Your task to perform on an android device: Show me popular videos on Youtube Image 0: 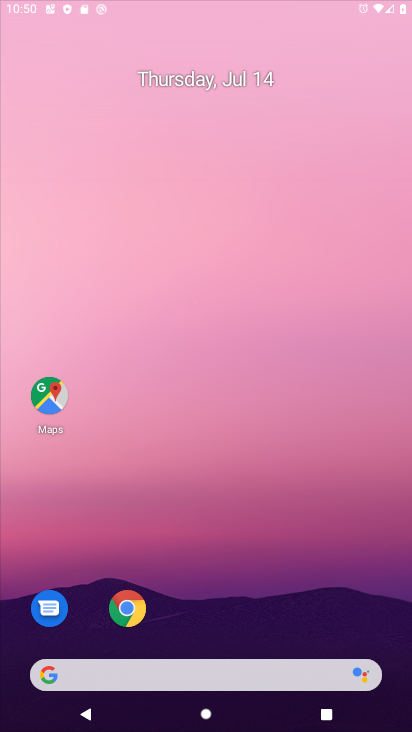
Step 0: drag from (251, 598) to (241, 124)
Your task to perform on an android device: Show me popular videos on Youtube Image 1: 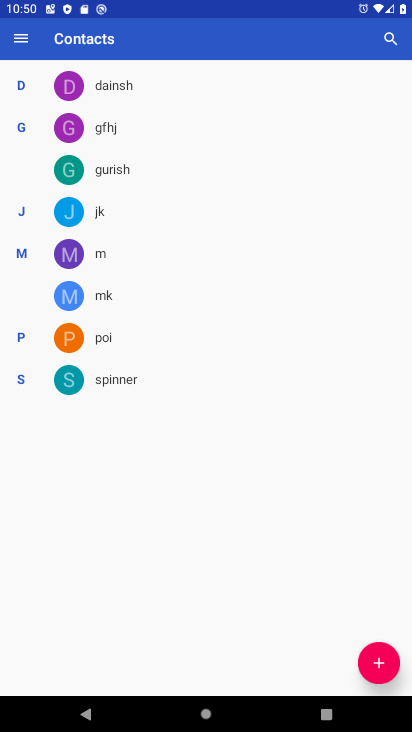
Step 1: press home button
Your task to perform on an android device: Show me popular videos on Youtube Image 2: 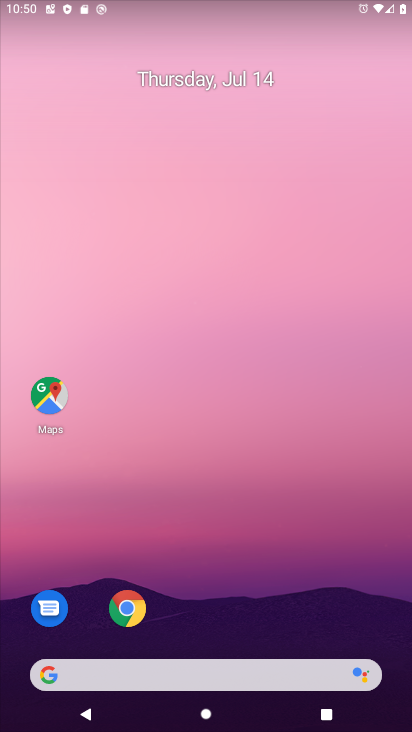
Step 2: drag from (253, 709) to (240, 202)
Your task to perform on an android device: Show me popular videos on Youtube Image 3: 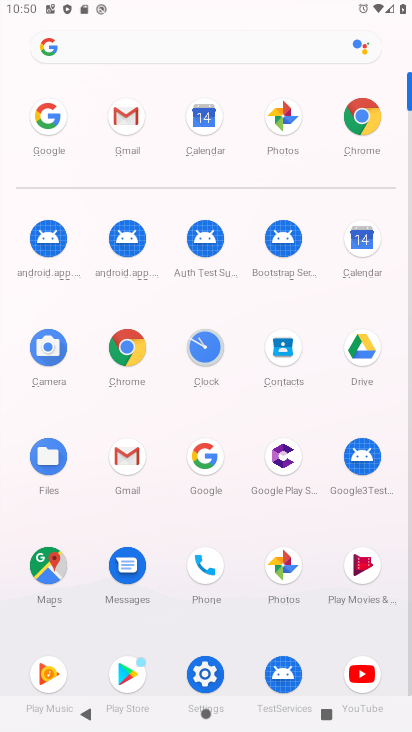
Step 3: click (361, 671)
Your task to perform on an android device: Show me popular videos on Youtube Image 4: 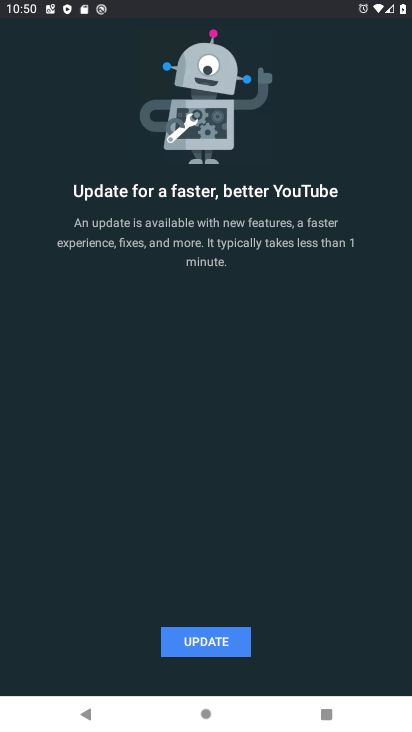
Step 4: task complete